Your task to perform on an android device: open app "Messages" (install if not already installed) Image 0: 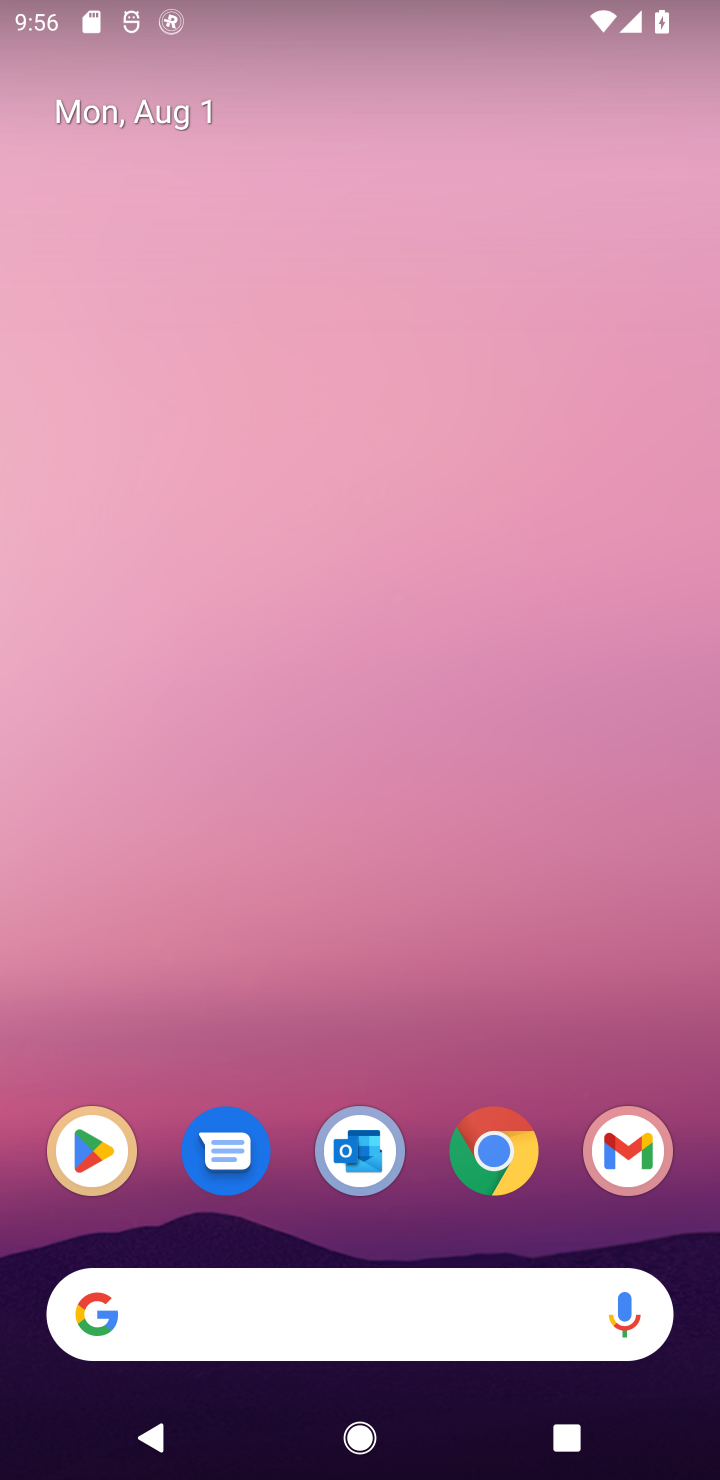
Step 0: click (70, 1176)
Your task to perform on an android device: open app "Messages" (install if not already installed) Image 1: 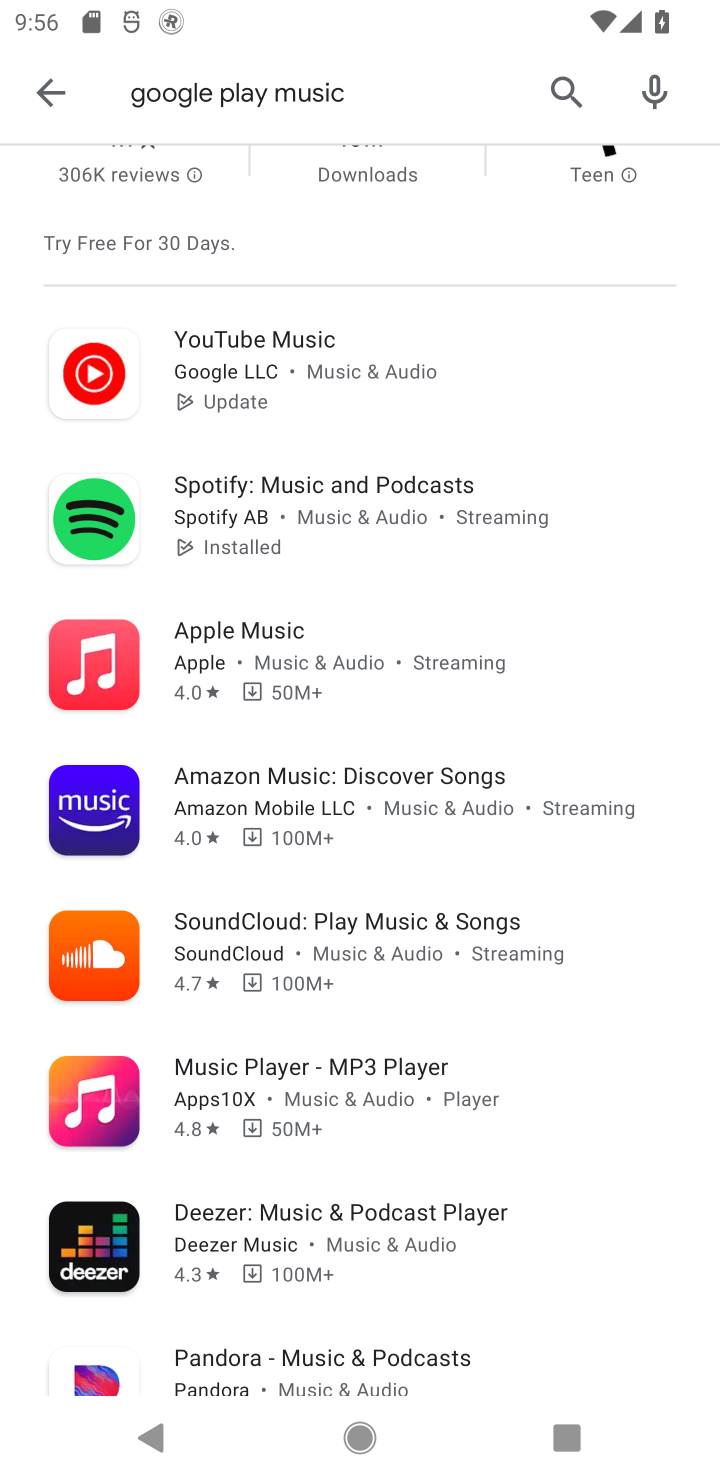
Step 1: click (547, 82)
Your task to perform on an android device: open app "Messages" (install if not already installed) Image 2: 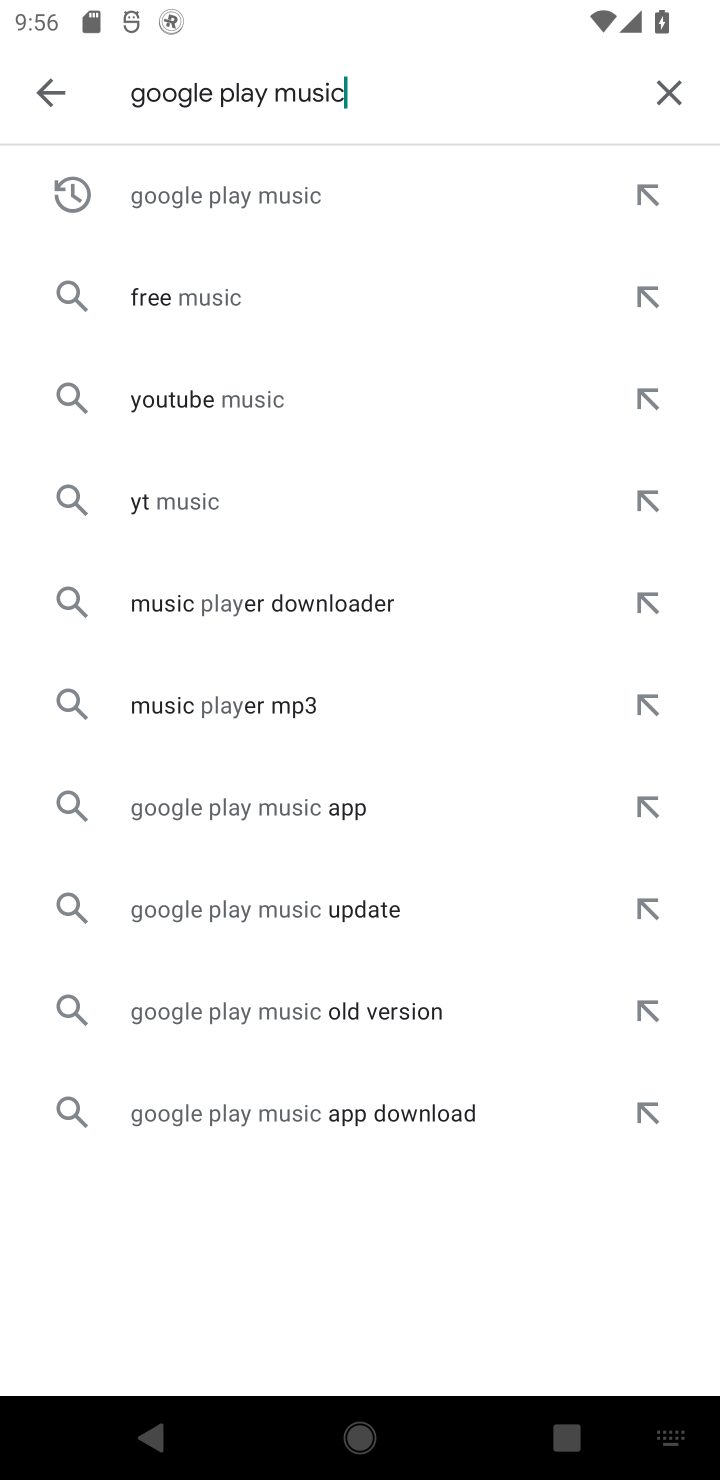
Step 2: click (673, 102)
Your task to perform on an android device: open app "Messages" (install if not already installed) Image 3: 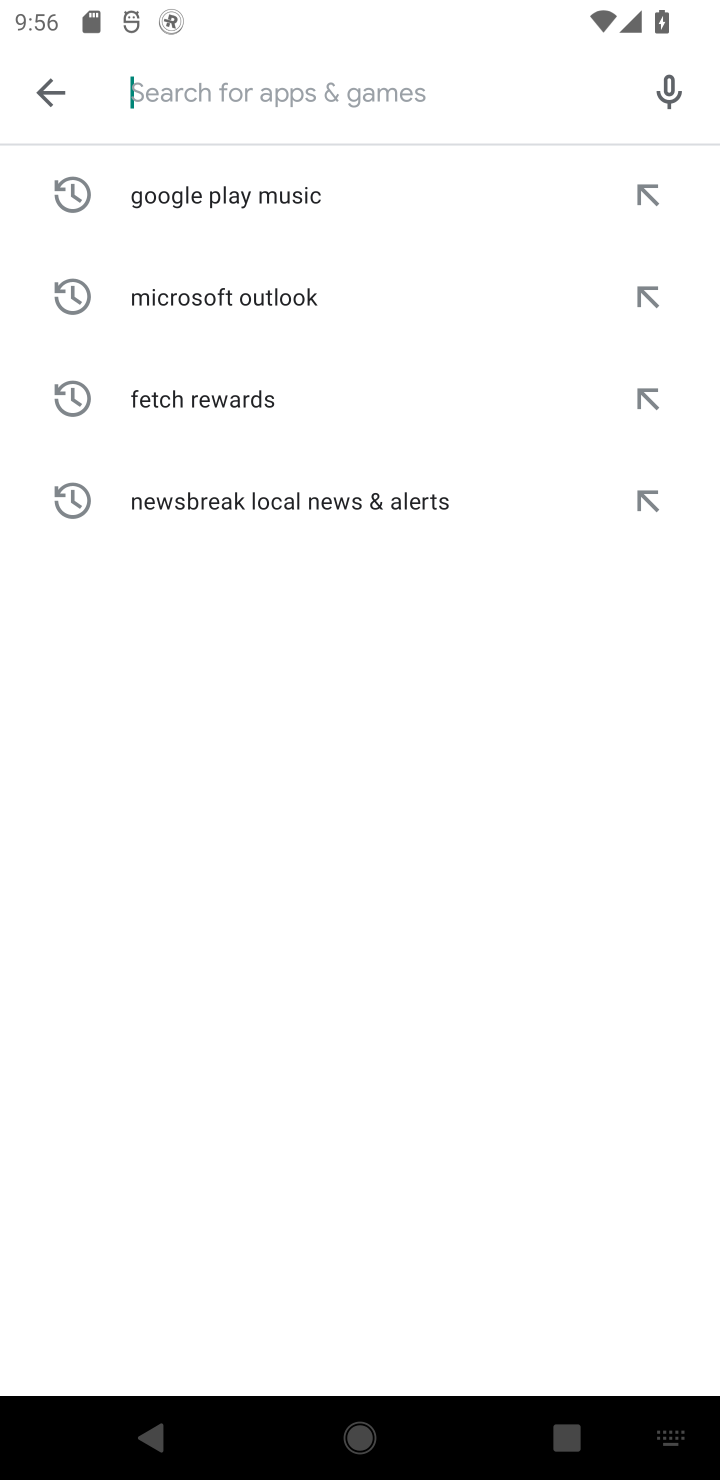
Step 3: type "Messages"
Your task to perform on an android device: open app "Messages" (install if not already installed) Image 4: 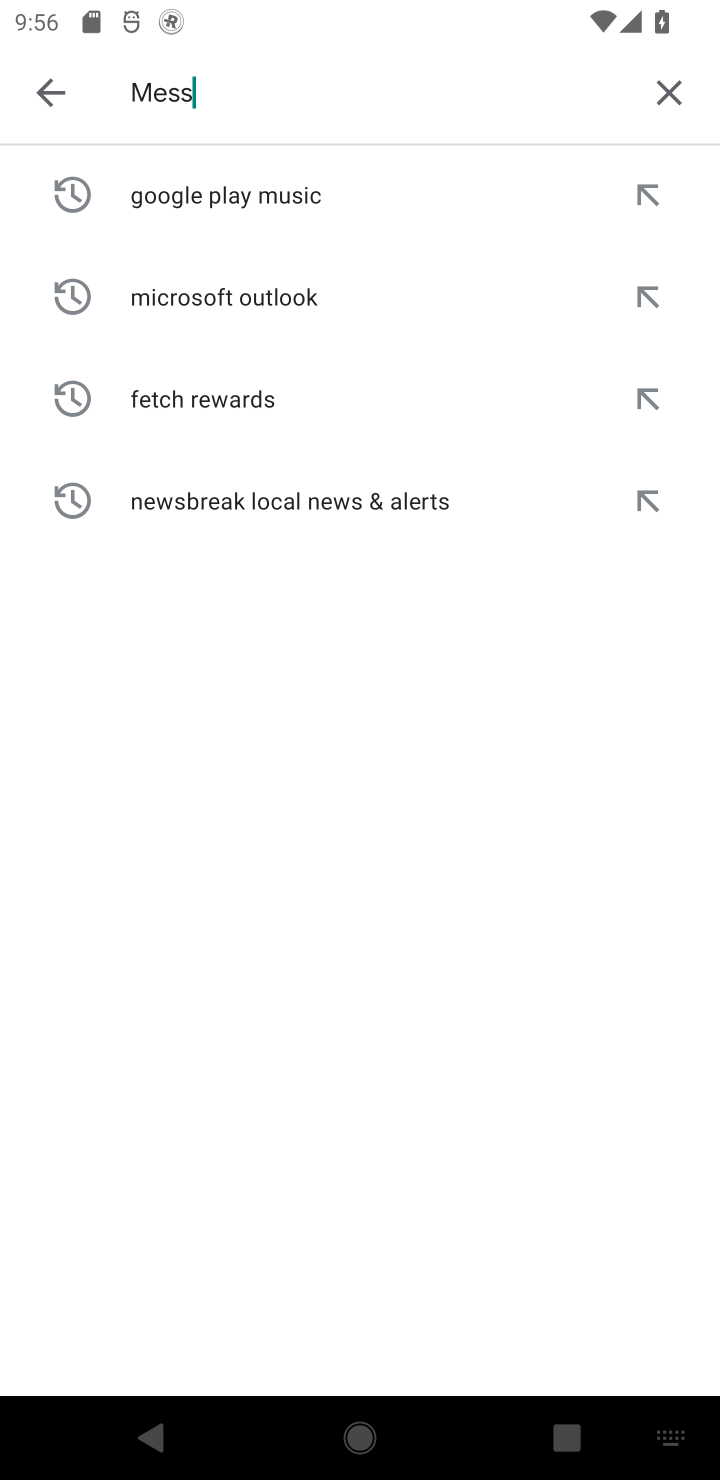
Step 4: type ""
Your task to perform on an android device: open app "Messages" (install if not already installed) Image 5: 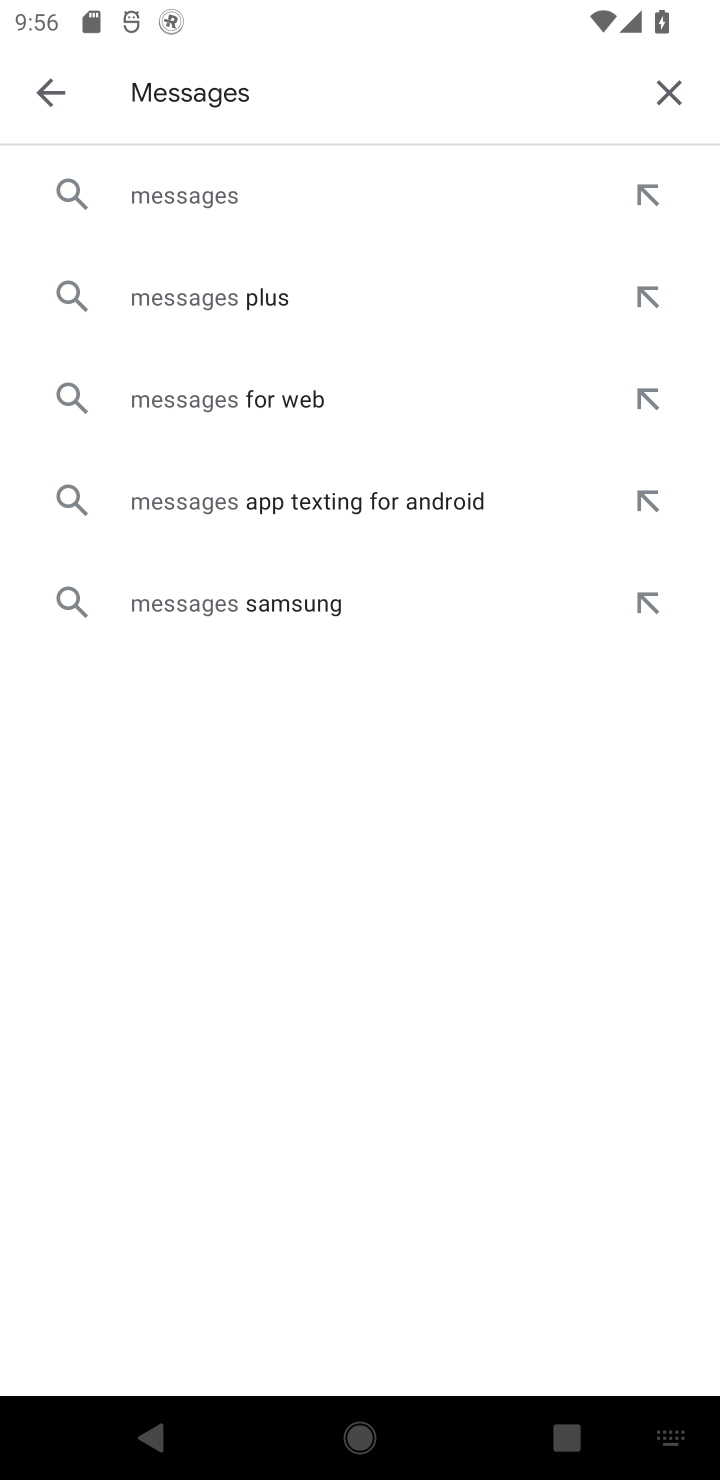
Step 5: click (208, 211)
Your task to perform on an android device: open app "Messages" (install if not already installed) Image 6: 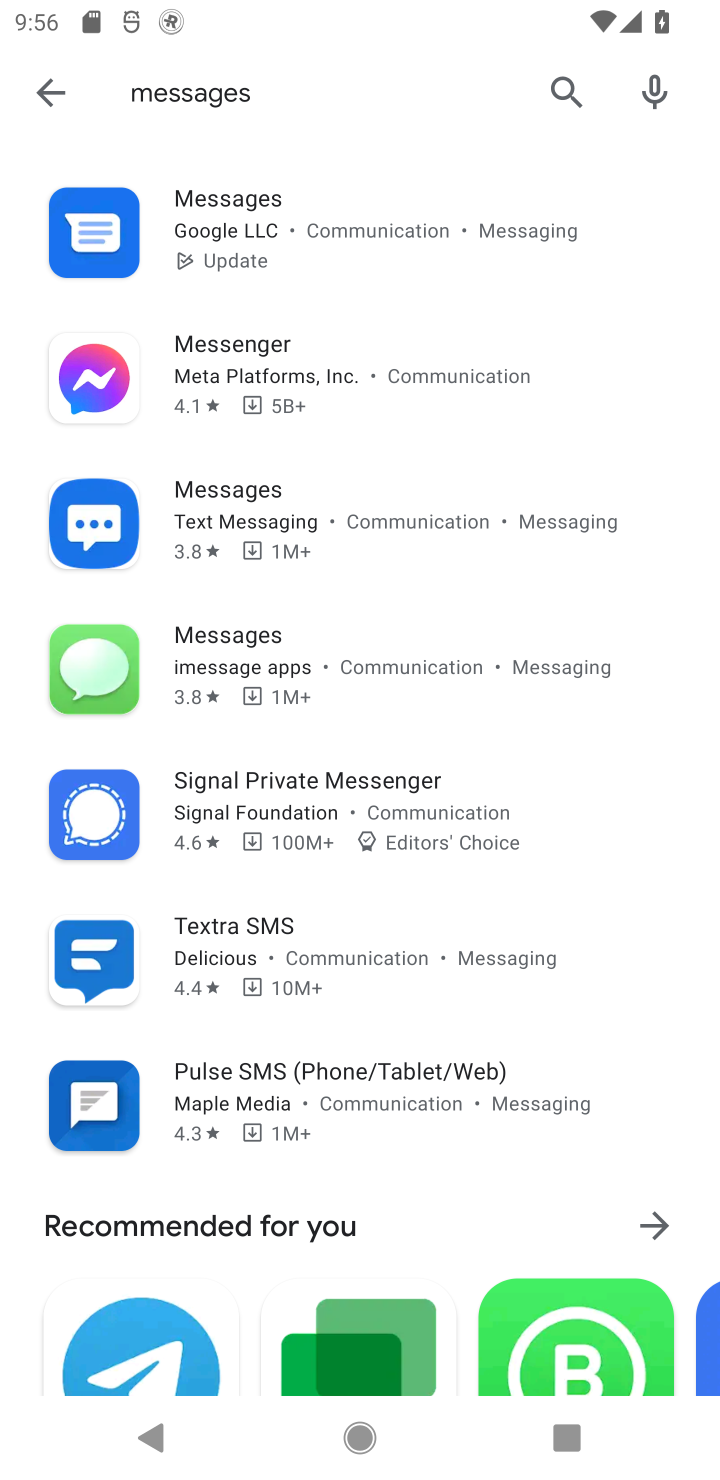
Step 6: click (268, 241)
Your task to perform on an android device: open app "Messages" (install if not already installed) Image 7: 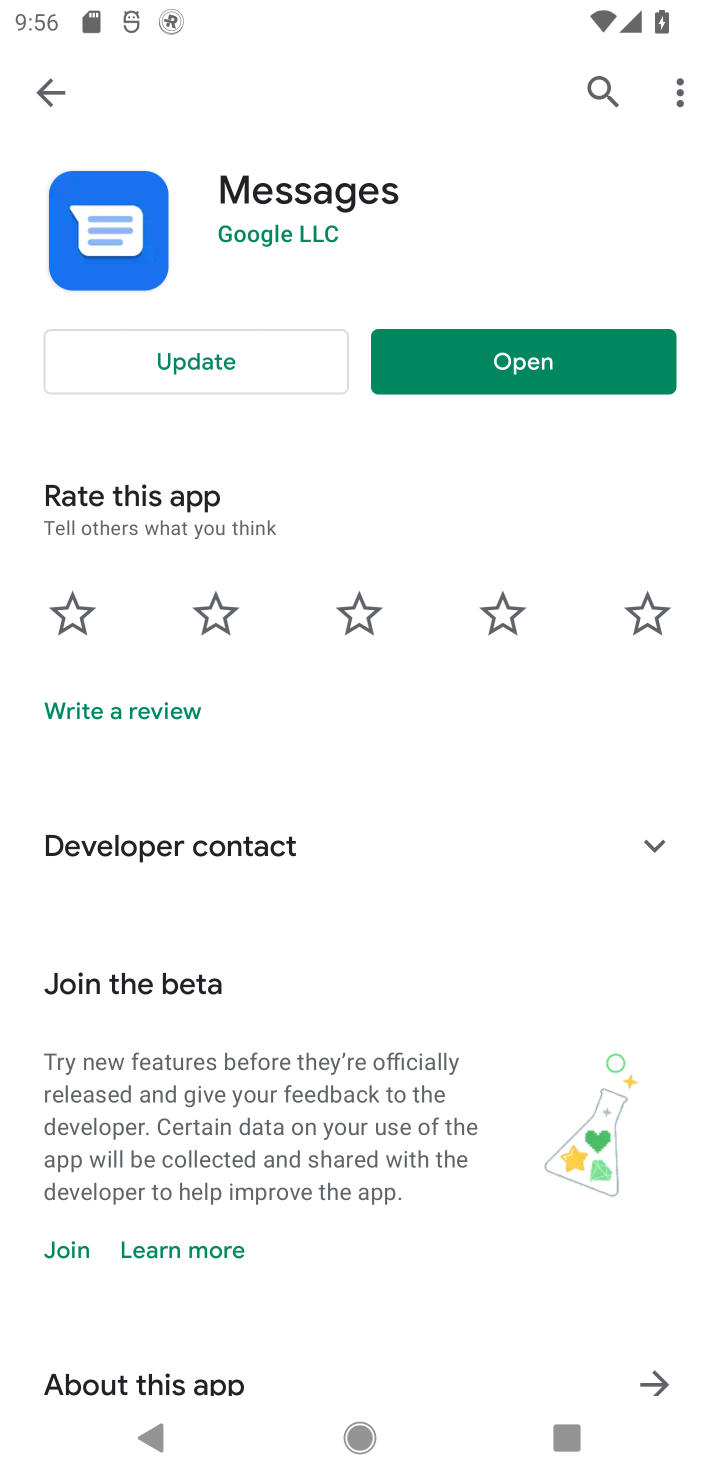
Step 7: click (516, 360)
Your task to perform on an android device: open app "Messages" (install if not already installed) Image 8: 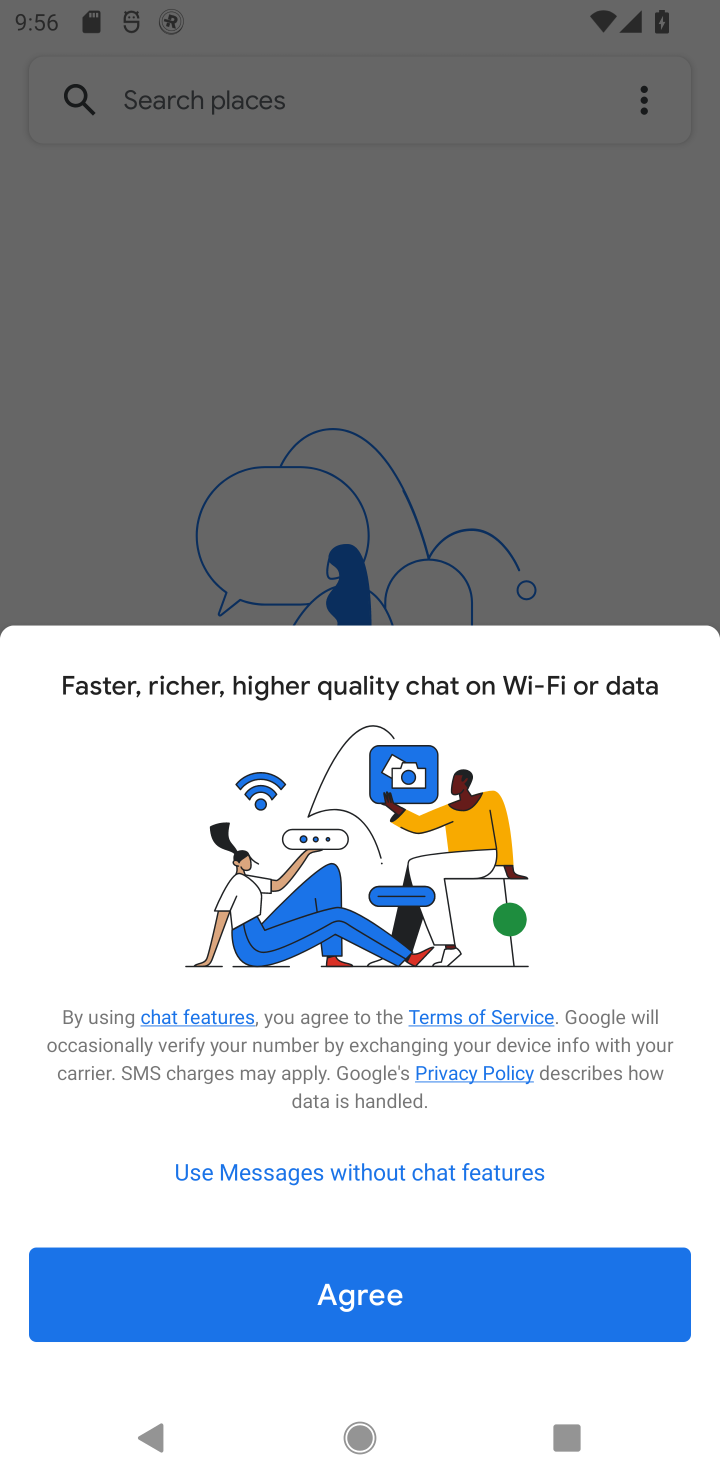
Step 8: task complete